Your task to perform on an android device: turn notification dots off Image 0: 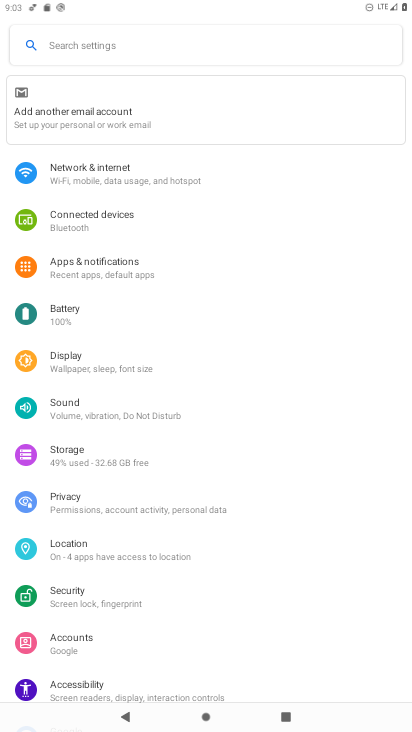
Step 0: click (169, 262)
Your task to perform on an android device: turn notification dots off Image 1: 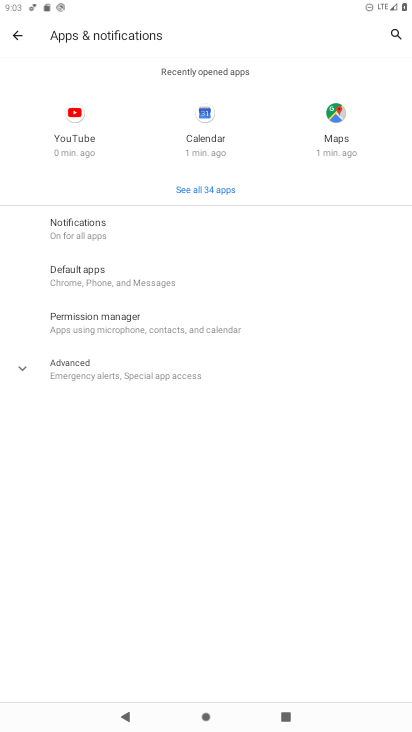
Step 1: click (104, 361)
Your task to perform on an android device: turn notification dots off Image 2: 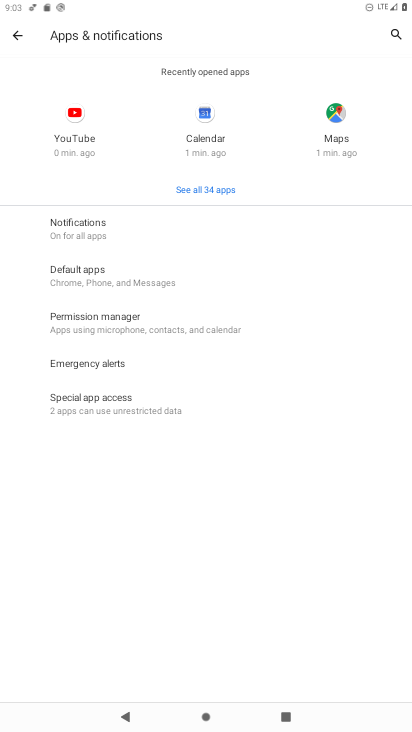
Step 2: click (149, 239)
Your task to perform on an android device: turn notification dots off Image 3: 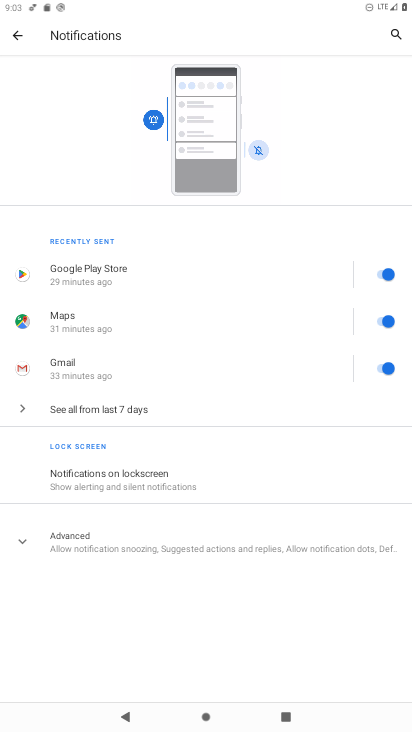
Step 3: click (201, 538)
Your task to perform on an android device: turn notification dots off Image 4: 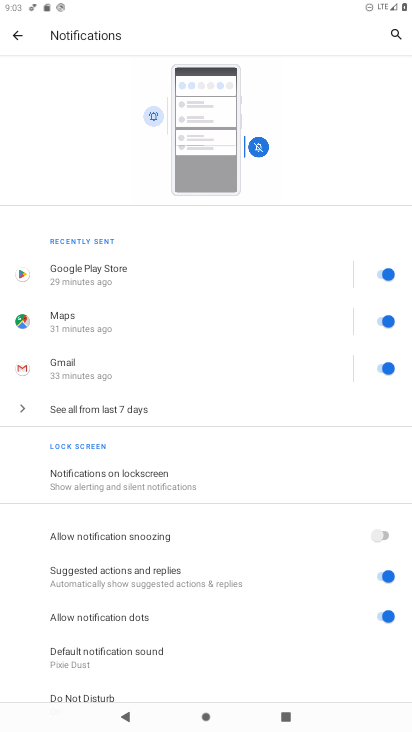
Step 4: click (389, 614)
Your task to perform on an android device: turn notification dots off Image 5: 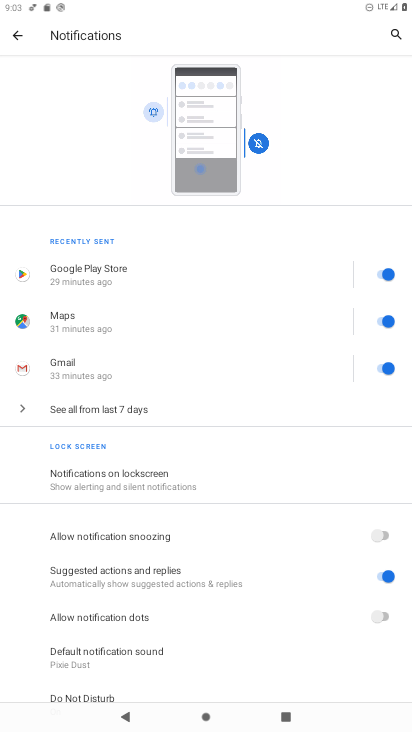
Step 5: task complete